Your task to perform on an android device: Open Google Maps Image 0: 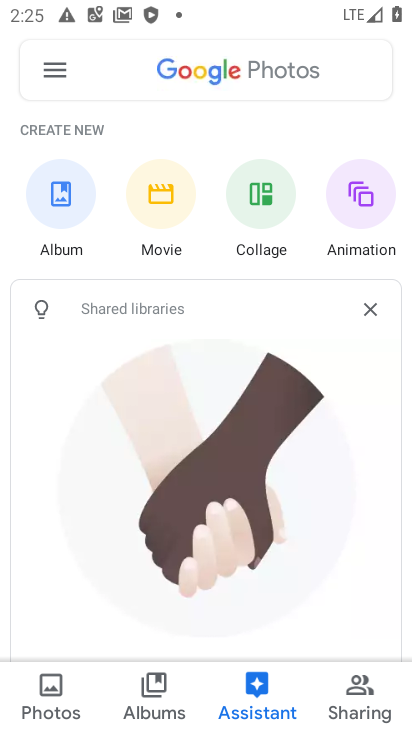
Step 0: press home button
Your task to perform on an android device: Open Google Maps Image 1: 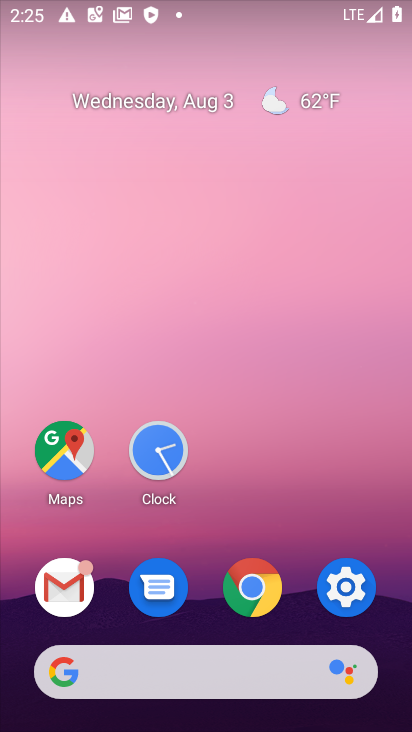
Step 1: click (53, 448)
Your task to perform on an android device: Open Google Maps Image 2: 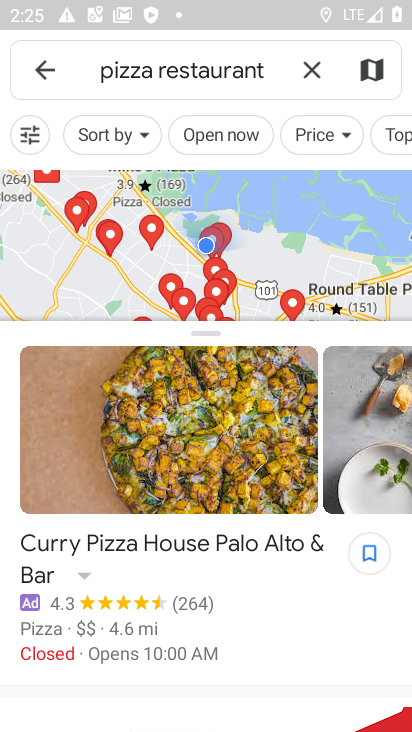
Step 2: click (37, 72)
Your task to perform on an android device: Open Google Maps Image 3: 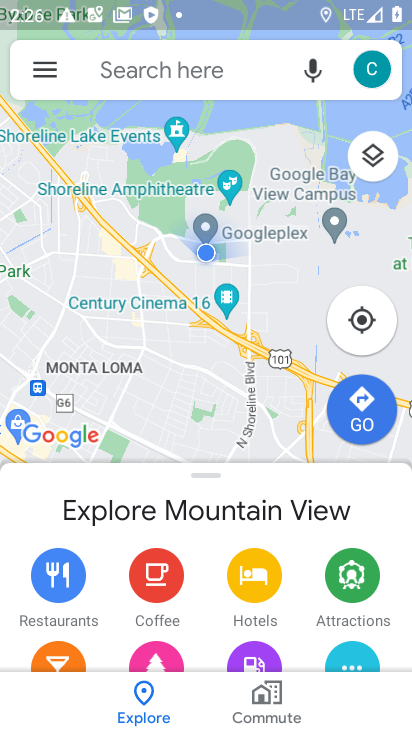
Step 3: task complete